Your task to perform on an android device: Go to accessibility settings Image 0: 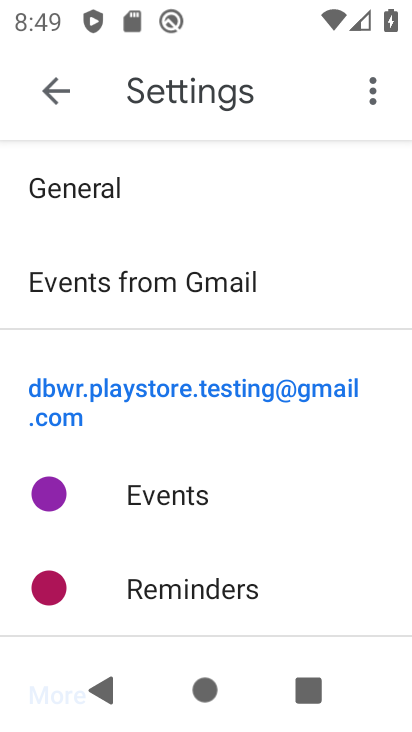
Step 0: press home button
Your task to perform on an android device: Go to accessibility settings Image 1: 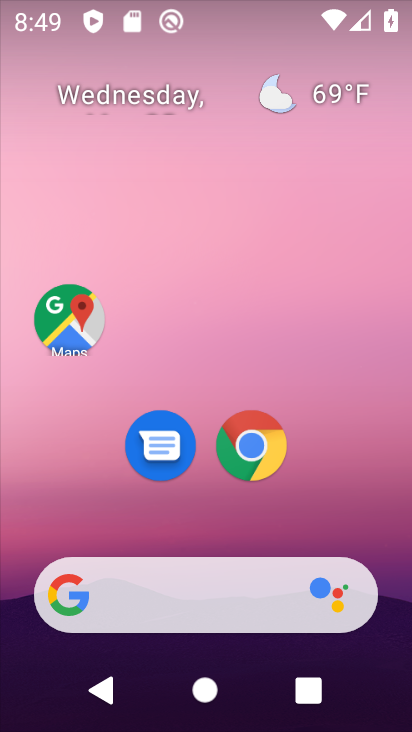
Step 1: drag from (342, 515) to (341, 83)
Your task to perform on an android device: Go to accessibility settings Image 2: 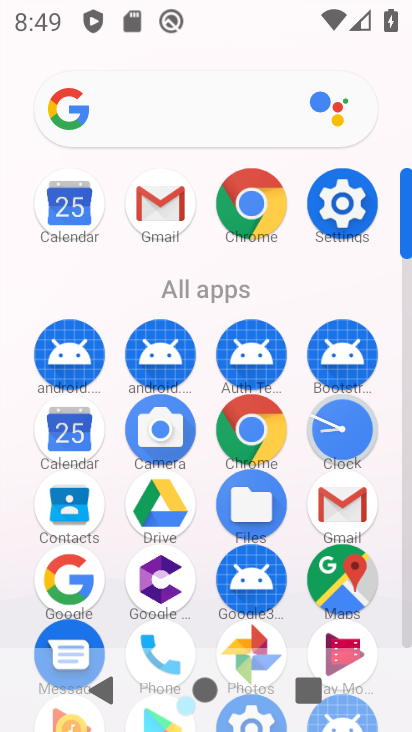
Step 2: click (340, 200)
Your task to perform on an android device: Go to accessibility settings Image 3: 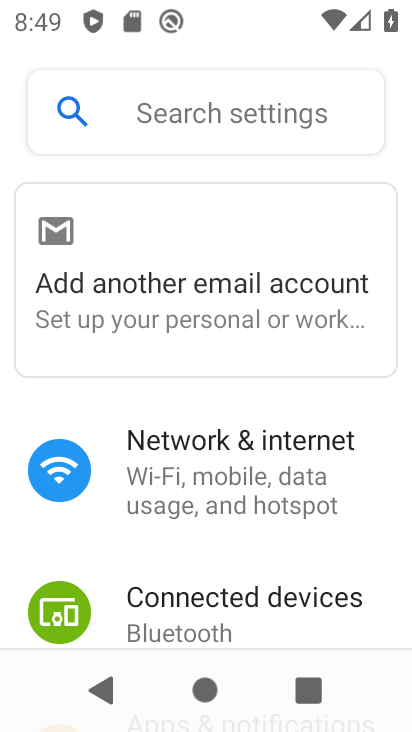
Step 3: drag from (306, 593) to (315, 175)
Your task to perform on an android device: Go to accessibility settings Image 4: 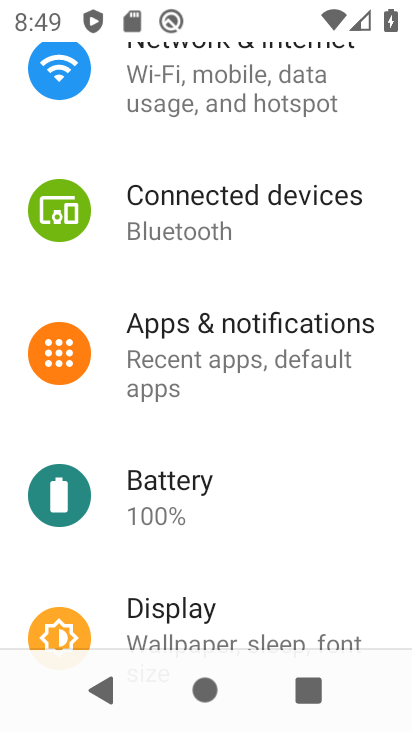
Step 4: drag from (302, 562) to (298, 146)
Your task to perform on an android device: Go to accessibility settings Image 5: 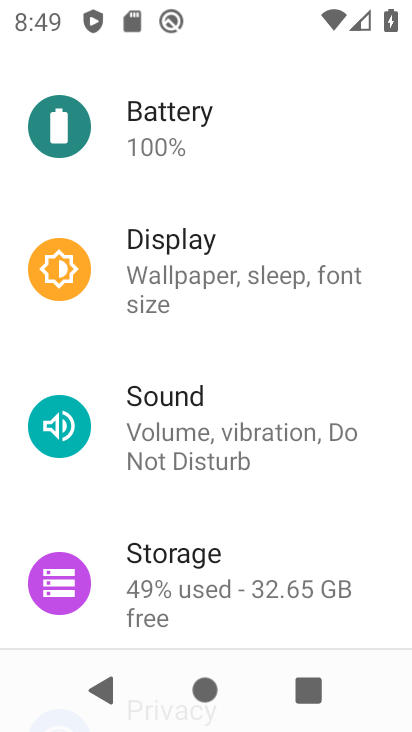
Step 5: drag from (298, 532) to (309, 122)
Your task to perform on an android device: Go to accessibility settings Image 6: 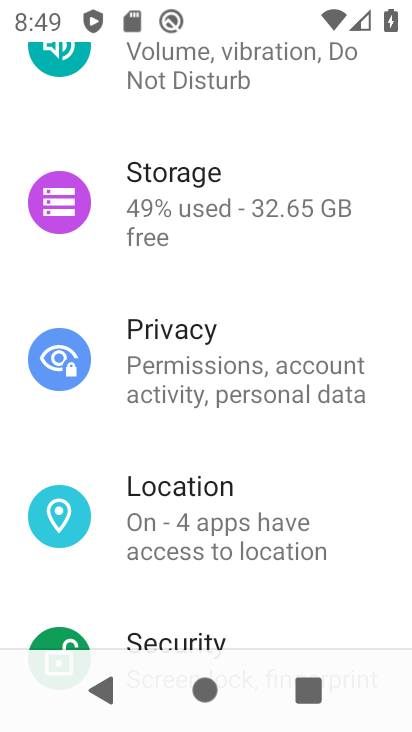
Step 6: drag from (311, 613) to (325, 112)
Your task to perform on an android device: Go to accessibility settings Image 7: 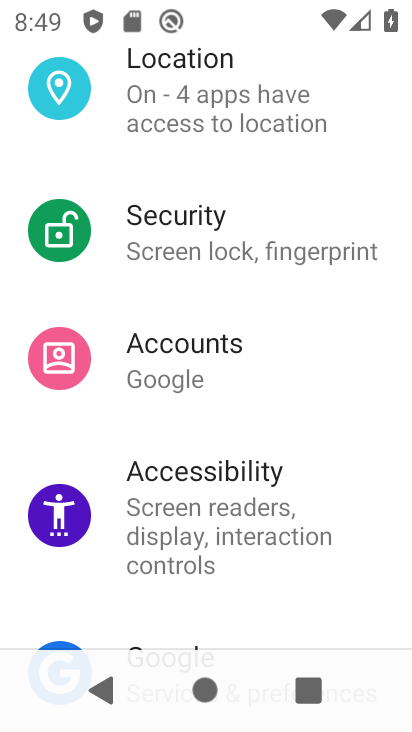
Step 7: click (197, 486)
Your task to perform on an android device: Go to accessibility settings Image 8: 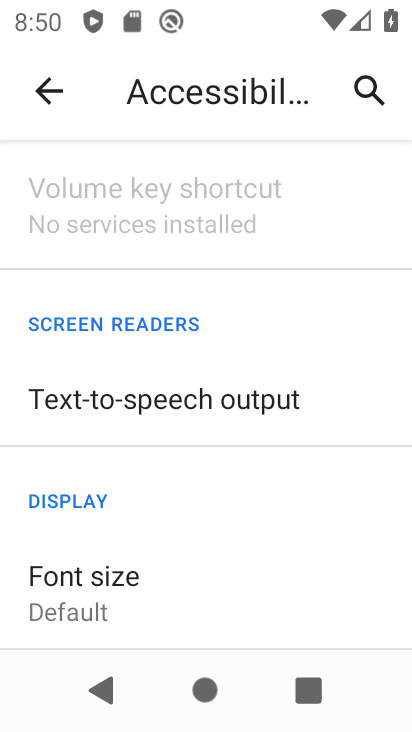
Step 8: task complete